Your task to perform on an android device: Open Yahoo.com Image 0: 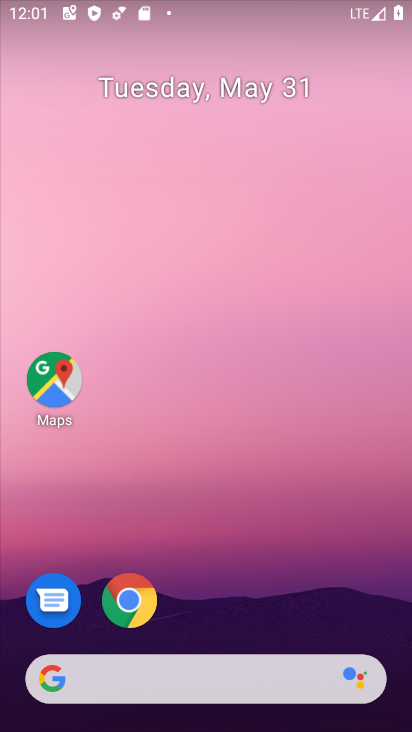
Step 0: click (129, 600)
Your task to perform on an android device: Open Yahoo.com Image 1: 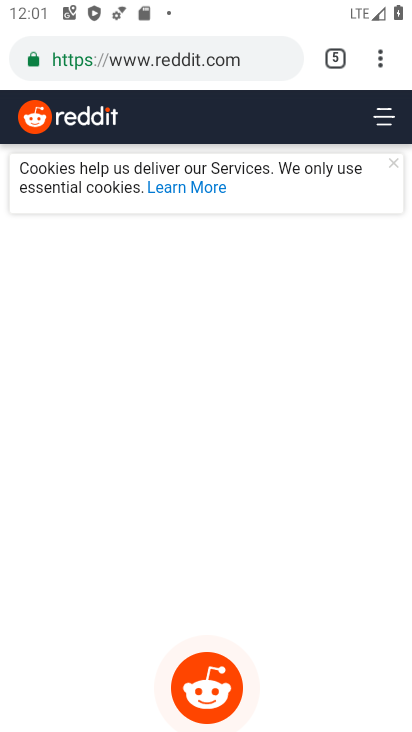
Step 1: click (382, 66)
Your task to perform on an android device: Open Yahoo.com Image 2: 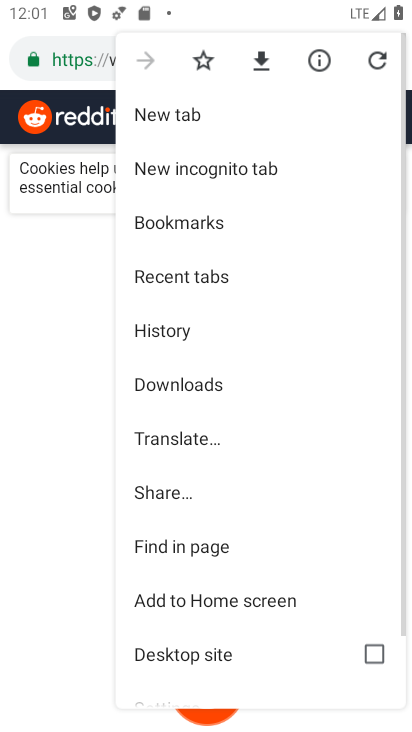
Step 2: click (171, 109)
Your task to perform on an android device: Open Yahoo.com Image 3: 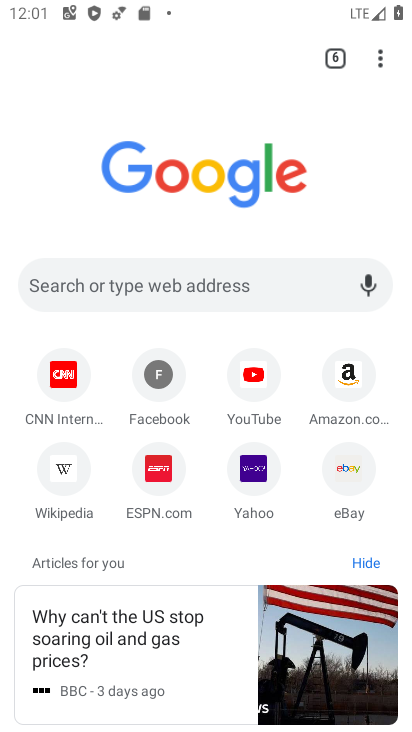
Step 3: click (260, 466)
Your task to perform on an android device: Open Yahoo.com Image 4: 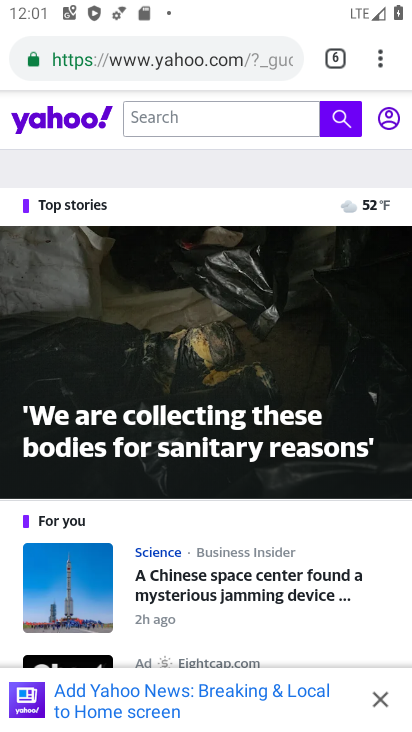
Step 4: task complete